Your task to perform on an android device: What's the weather going to be tomorrow? Image 0: 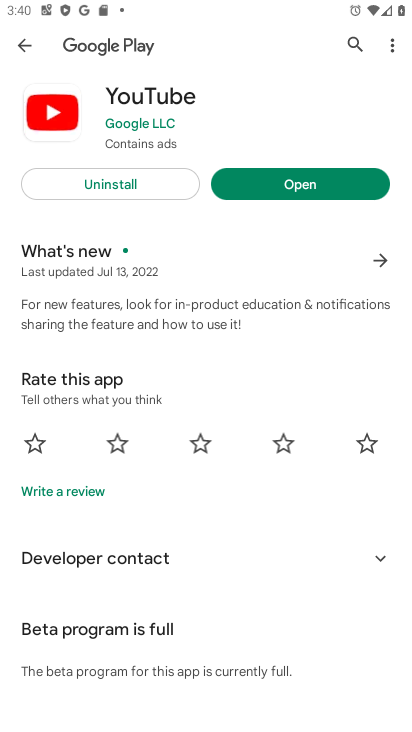
Step 0: press home button
Your task to perform on an android device: What's the weather going to be tomorrow? Image 1: 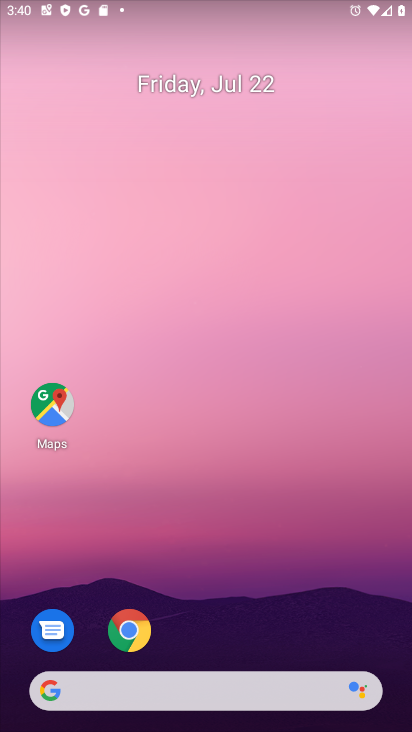
Step 1: drag from (191, 670) to (133, 174)
Your task to perform on an android device: What's the weather going to be tomorrow? Image 2: 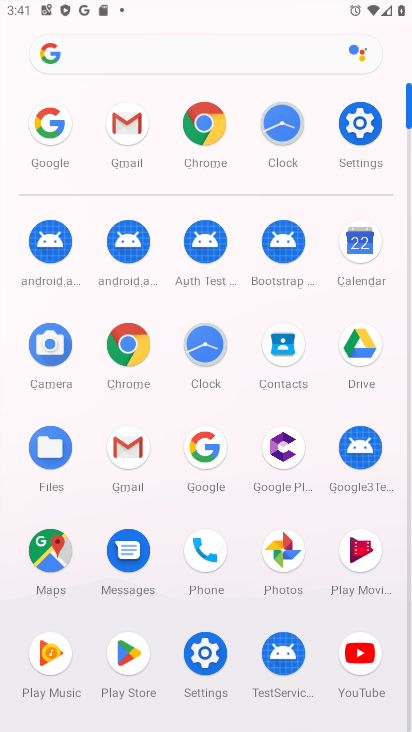
Step 2: click (197, 137)
Your task to perform on an android device: What's the weather going to be tomorrow? Image 3: 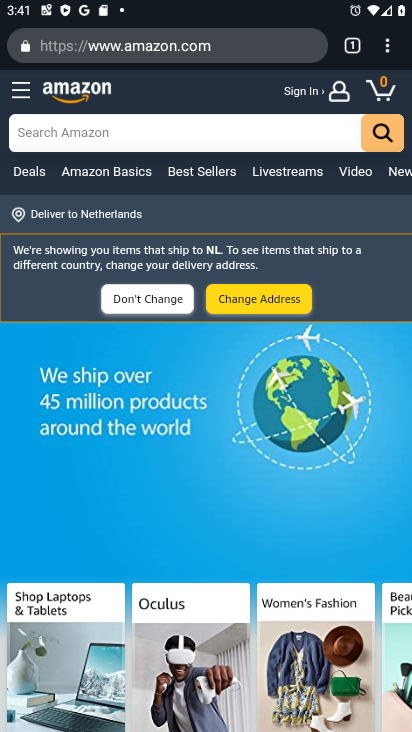
Step 3: click (234, 49)
Your task to perform on an android device: What's the weather going to be tomorrow? Image 4: 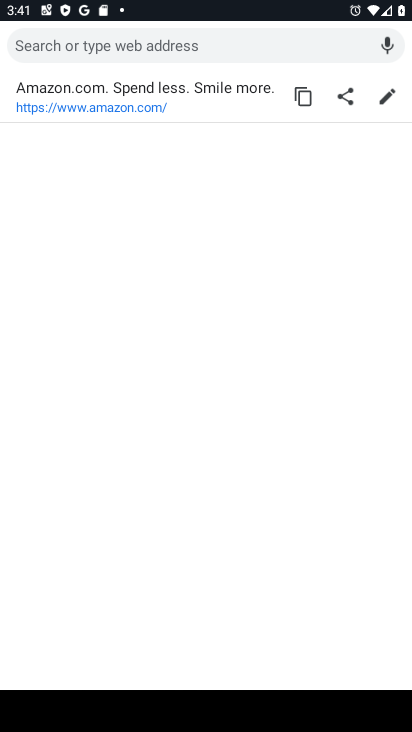
Step 4: type "weather tomorrow"
Your task to perform on an android device: What's the weather going to be tomorrow? Image 5: 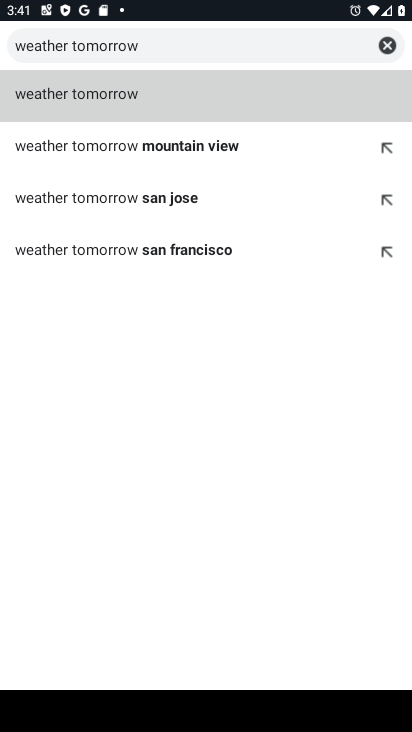
Step 5: click (165, 98)
Your task to perform on an android device: What's the weather going to be tomorrow? Image 6: 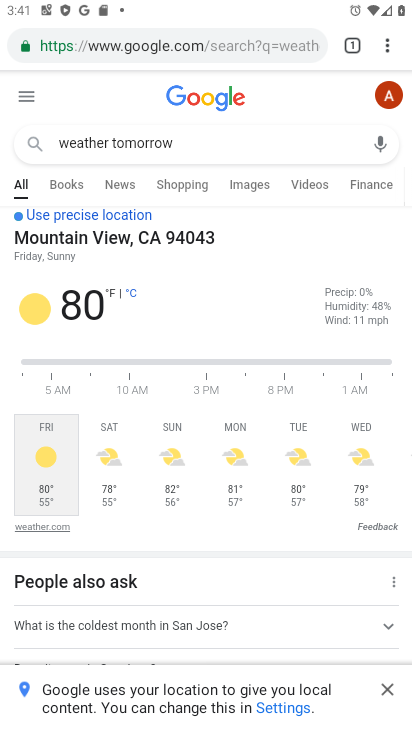
Step 6: task complete